Your task to perform on an android device: Go to Maps Image 0: 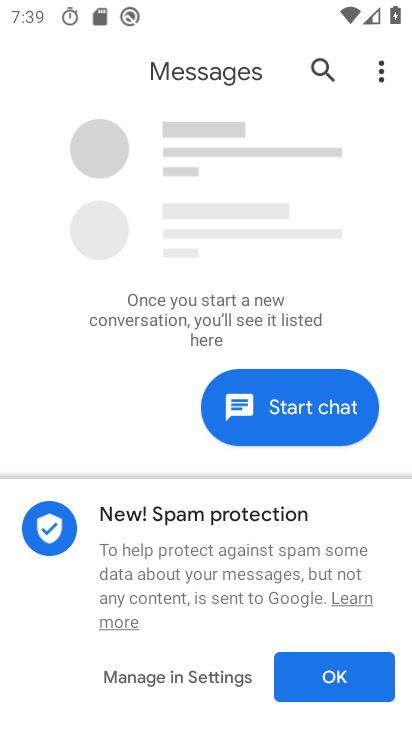
Step 0: press home button
Your task to perform on an android device: Go to Maps Image 1: 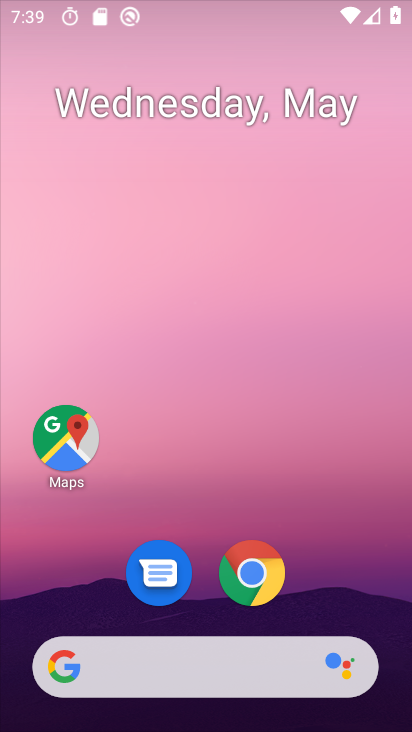
Step 1: drag from (315, 594) to (304, 15)
Your task to perform on an android device: Go to Maps Image 2: 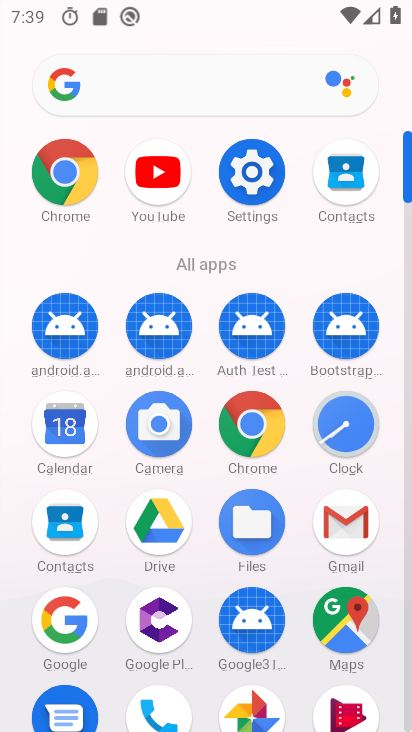
Step 2: click (350, 625)
Your task to perform on an android device: Go to Maps Image 3: 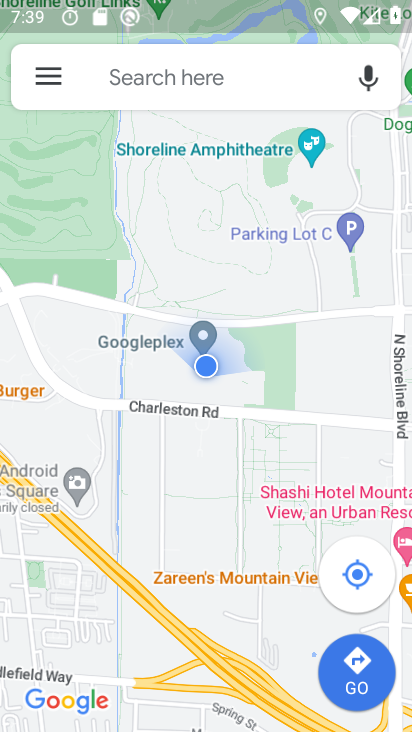
Step 3: task complete